Your task to perform on an android device: Is it going to rain this weekend? Image 0: 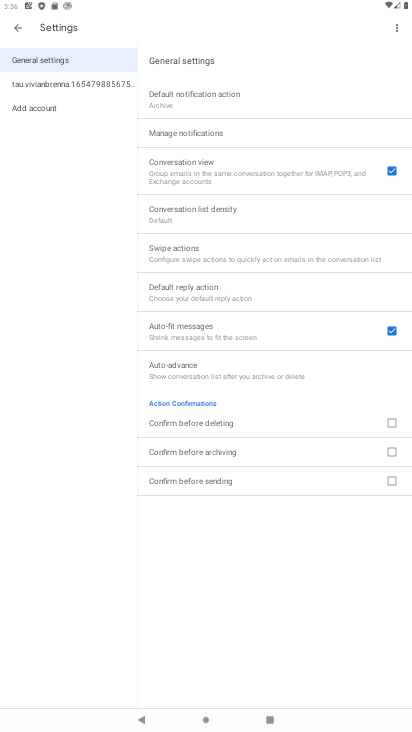
Step 0: press home button
Your task to perform on an android device: Is it going to rain this weekend? Image 1: 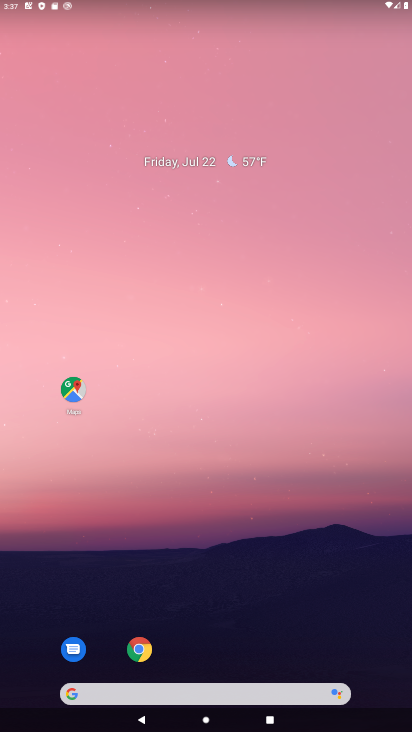
Step 1: click (143, 693)
Your task to perform on an android device: Is it going to rain this weekend? Image 2: 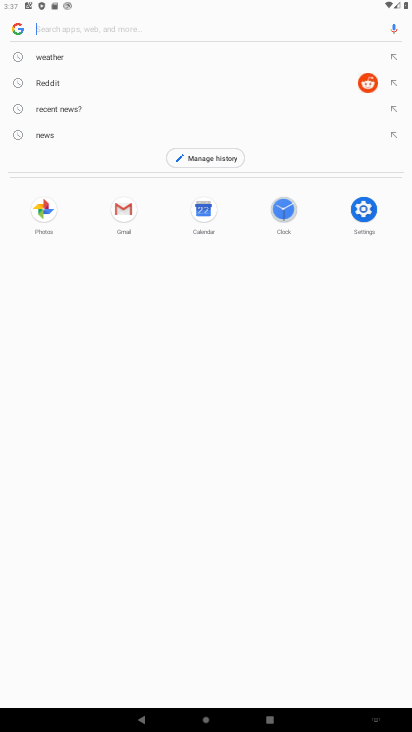
Step 2: type "Is it going to rain this weekend?"
Your task to perform on an android device: Is it going to rain this weekend? Image 3: 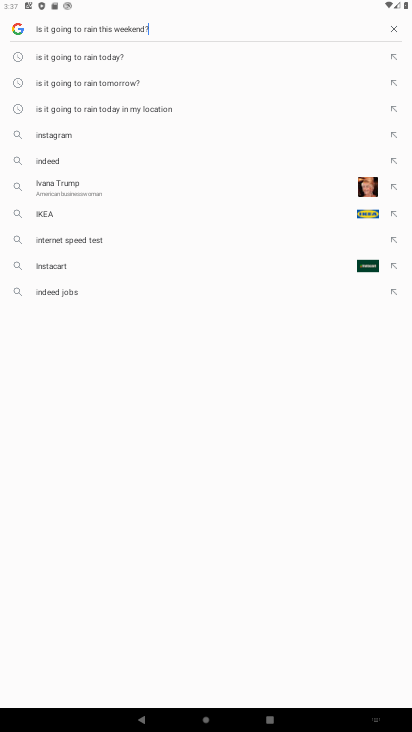
Step 3: type ""
Your task to perform on an android device: Is it going to rain this weekend? Image 4: 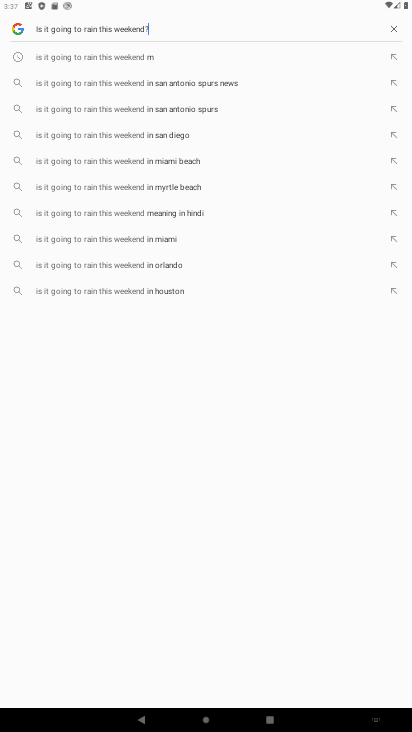
Step 4: type ""
Your task to perform on an android device: Is it going to rain this weekend? Image 5: 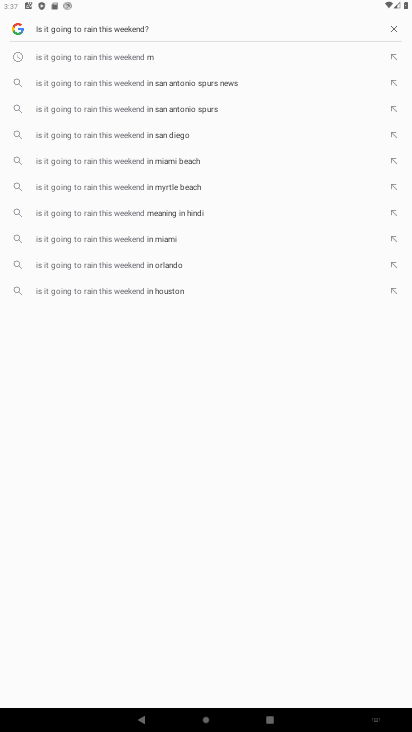
Step 5: type ""
Your task to perform on an android device: Is it going to rain this weekend? Image 6: 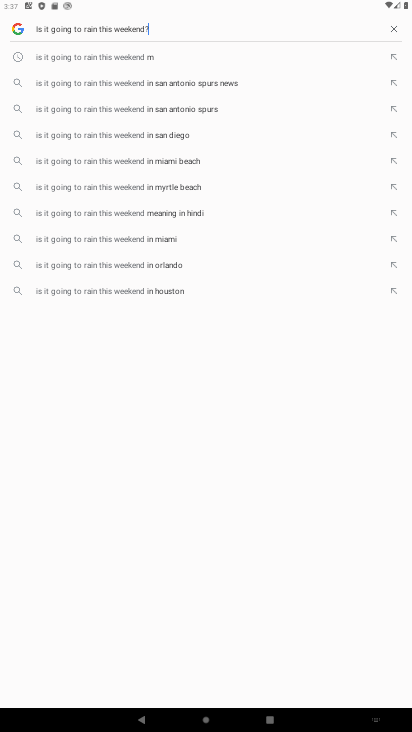
Step 6: task complete